Your task to perform on an android device: Go to settings Image 0: 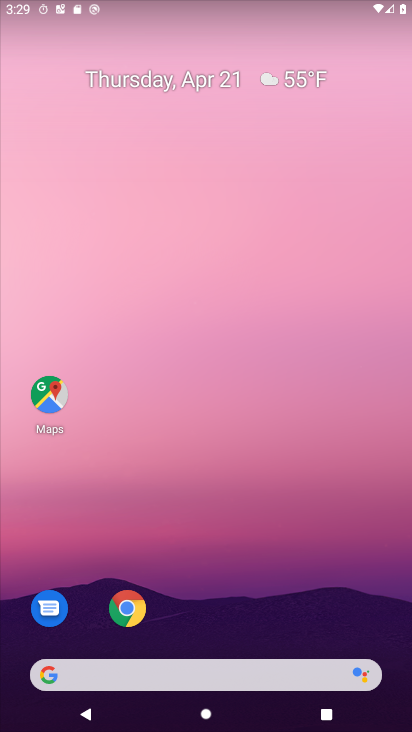
Step 0: drag from (274, 614) to (237, 3)
Your task to perform on an android device: Go to settings Image 1: 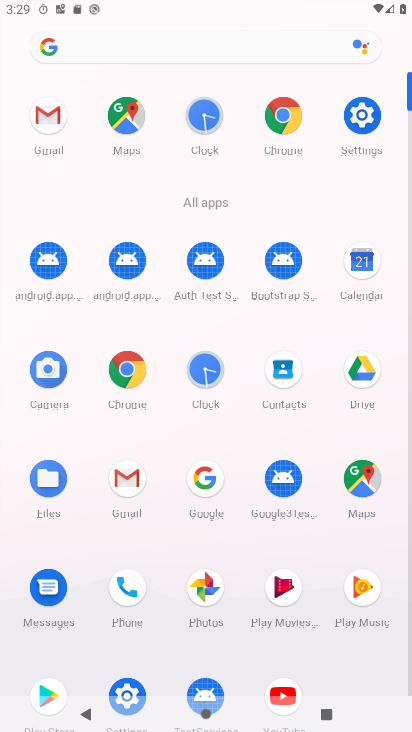
Step 1: click (357, 113)
Your task to perform on an android device: Go to settings Image 2: 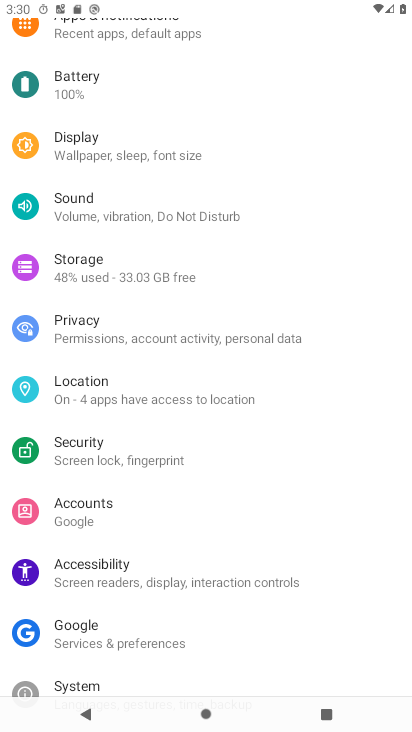
Step 2: task complete